Your task to perform on an android device: Go to Android settings Image 0: 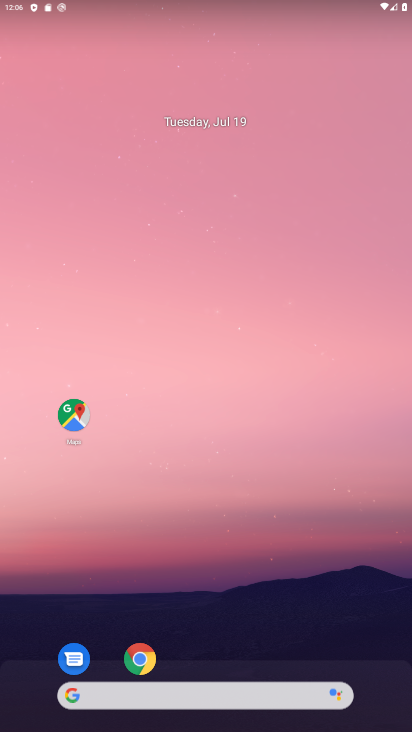
Step 0: drag from (195, 695) to (334, 47)
Your task to perform on an android device: Go to Android settings Image 1: 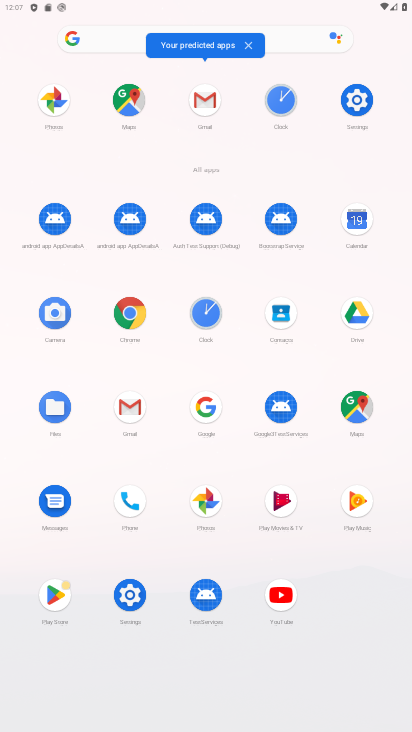
Step 1: click (357, 99)
Your task to perform on an android device: Go to Android settings Image 2: 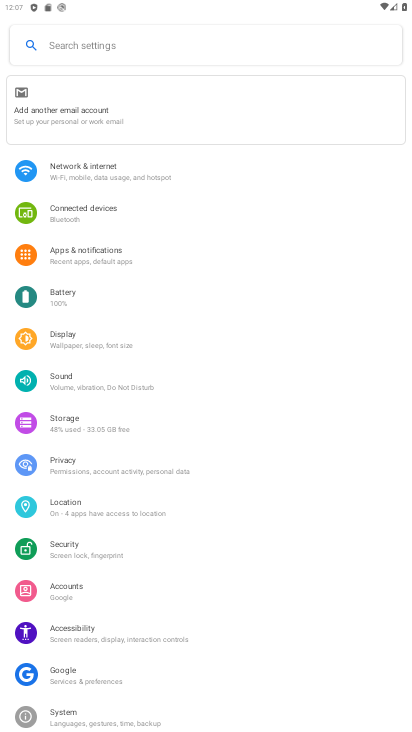
Step 2: task complete